Your task to perform on an android device: turn off wifi Image 0: 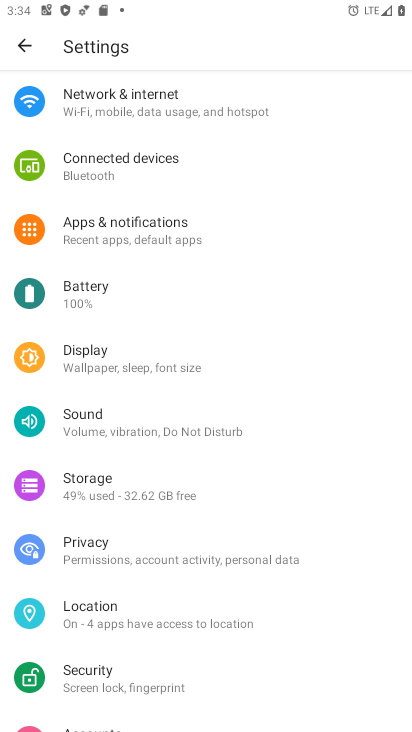
Step 0: drag from (208, 120) to (179, 581)
Your task to perform on an android device: turn off wifi Image 1: 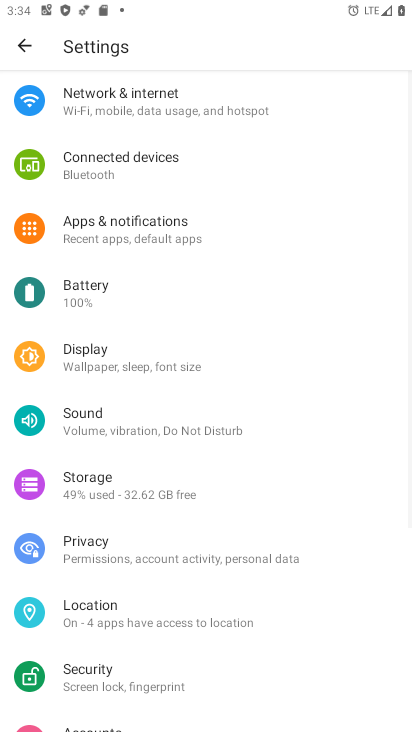
Step 1: click (113, 114)
Your task to perform on an android device: turn off wifi Image 2: 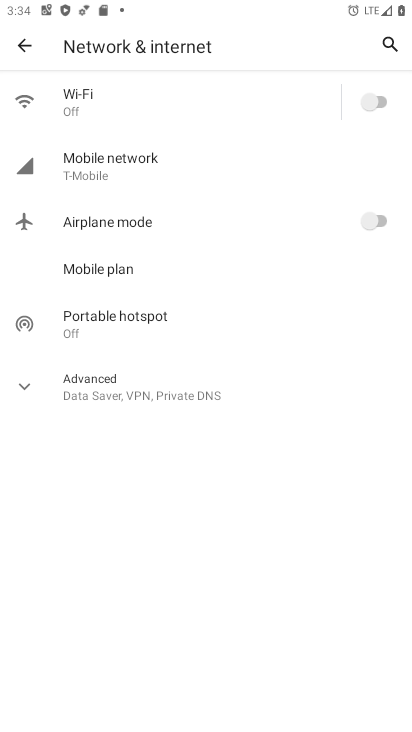
Step 2: task complete